Your task to perform on an android device: Go to Android settings Image 0: 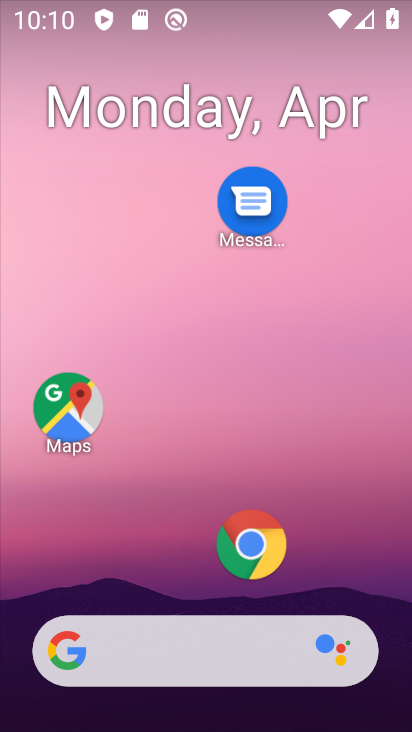
Step 0: press home button
Your task to perform on an android device: Go to Android settings Image 1: 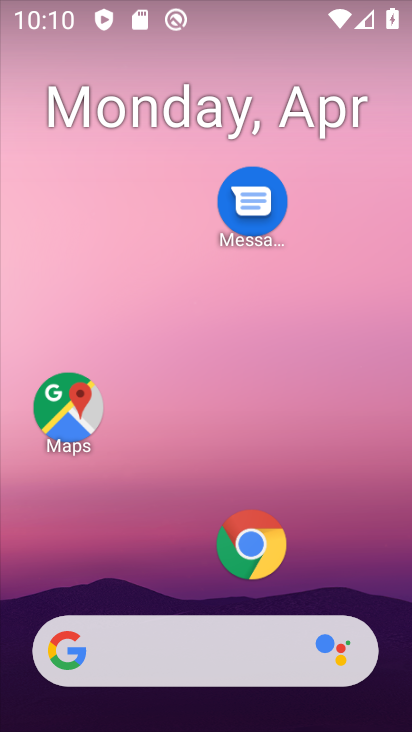
Step 1: drag from (187, 588) to (191, 126)
Your task to perform on an android device: Go to Android settings Image 2: 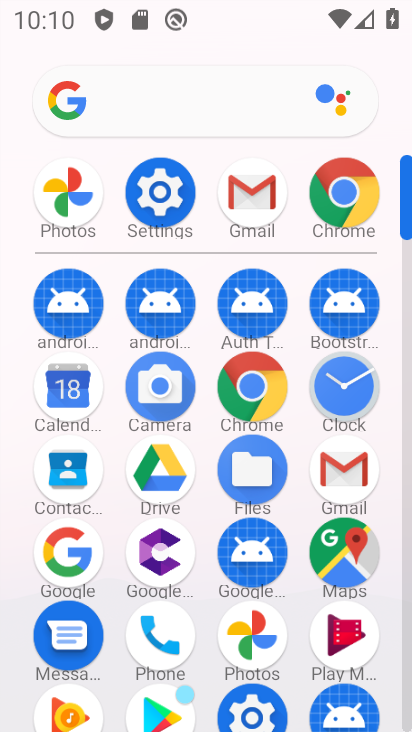
Step 2: click (250, 703)
Your task to perform on an android device: Go to Android settings Image 3: 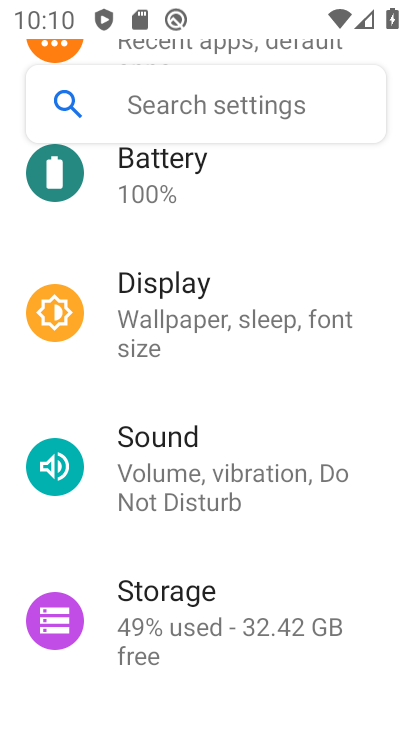
Step 3: drag from (180, 651) to (174, 61)
Your task to perform on an android device: Go to Android settings Image 4: 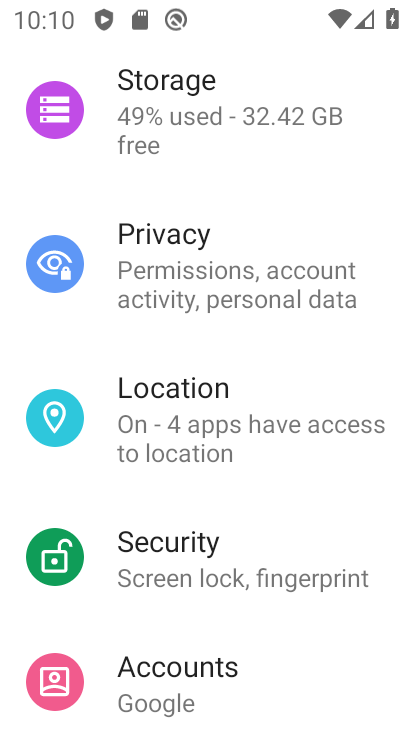
Step 4: drag from (183, 639) to (215, 76)
Your task to perform on an android device: Go to Android settings Image 5: 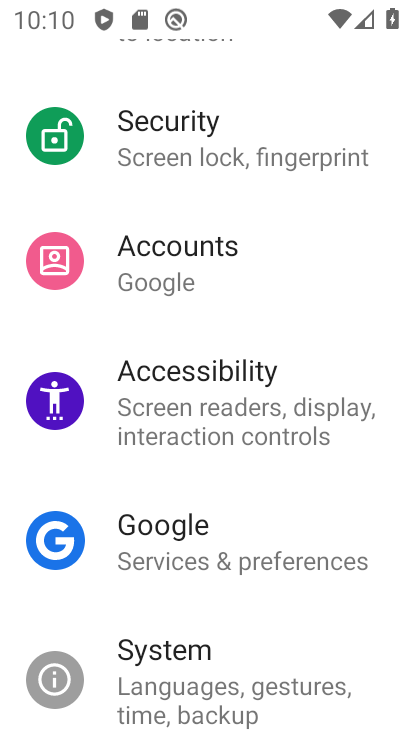
Step 5: drag from (204, 668) to (211, 101)
Your task to perform on an android device: Go to Android settings Image 6: 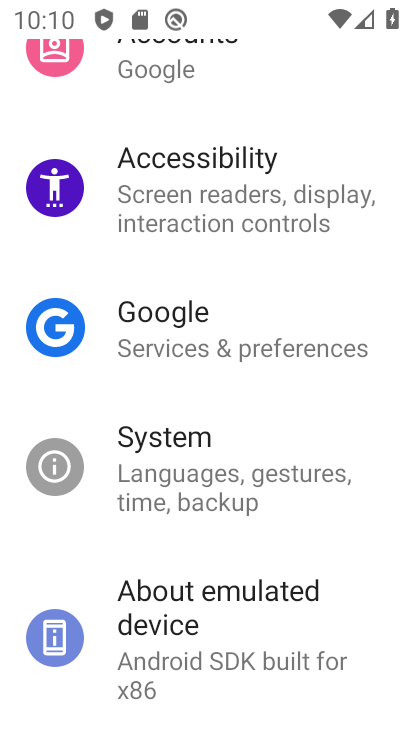
Step 6: click (194, 618)
Your task to perform on an android device: Go to Android settings Image 7: 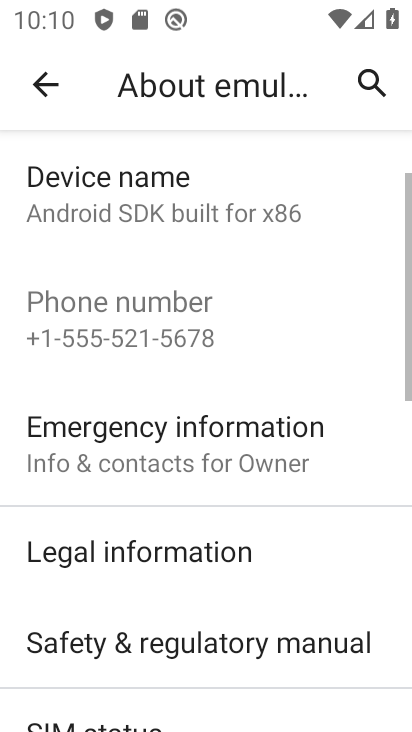
Step 7: drag from (195, 651) to (208, 131)
Your task to perform on an android device: Go to Android settings Image 8: 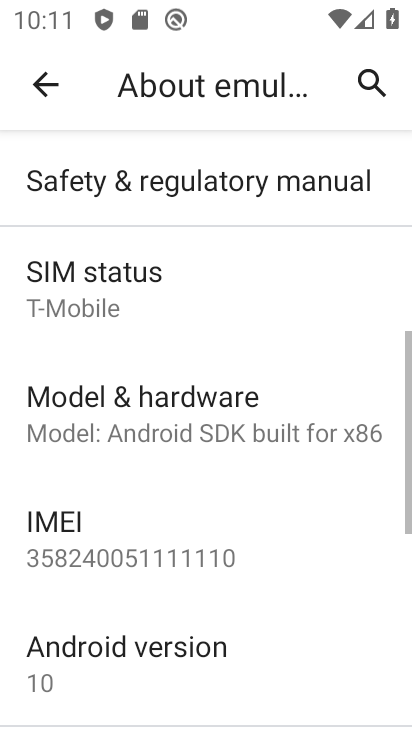
Step 8: click (105, 663)
Your task to perform on an android device: Go to Android settings Image 9: 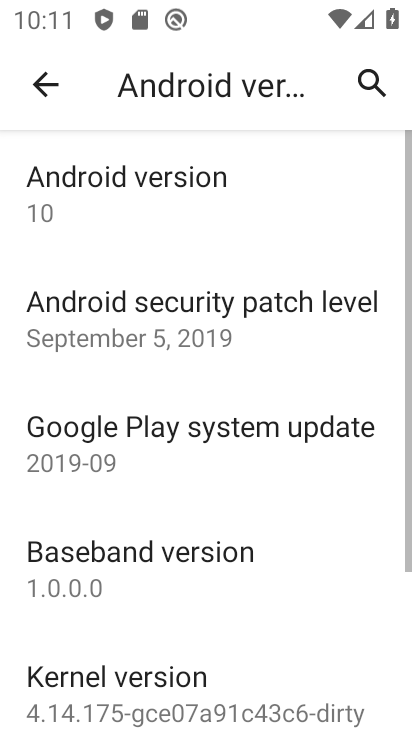
Step 9: task complete